Your task to perform on an android device: Open notification settings Image 0: 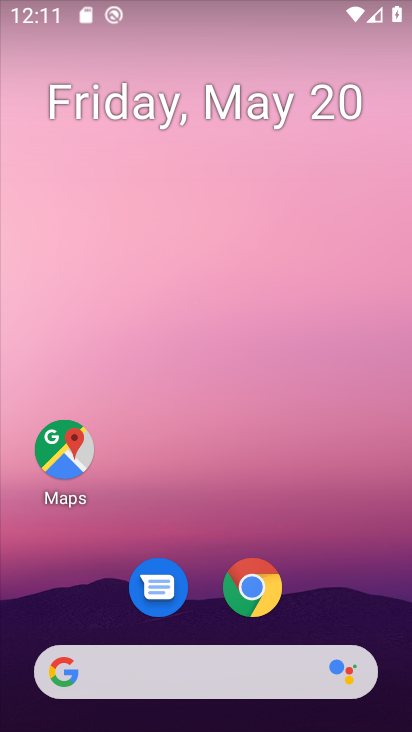
Step 0: drag from (376, 602) to (367, 170)
Your task to perform on an android device: Open notification settings Image 1: 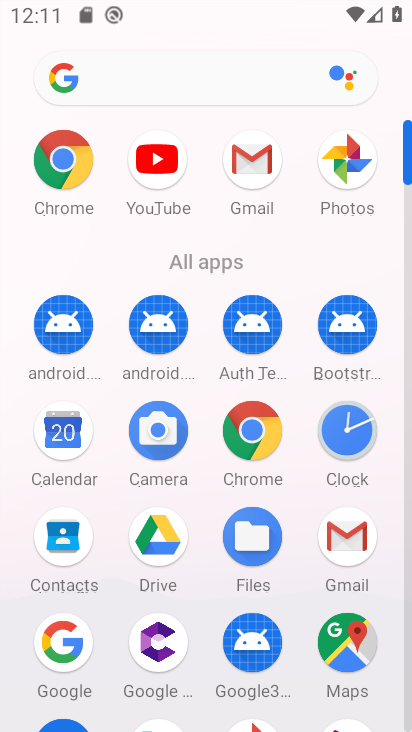
Step 1: drag from (296, 566) to (307, 377)
Your task to perform on an android device: Open notification settings Image 2: 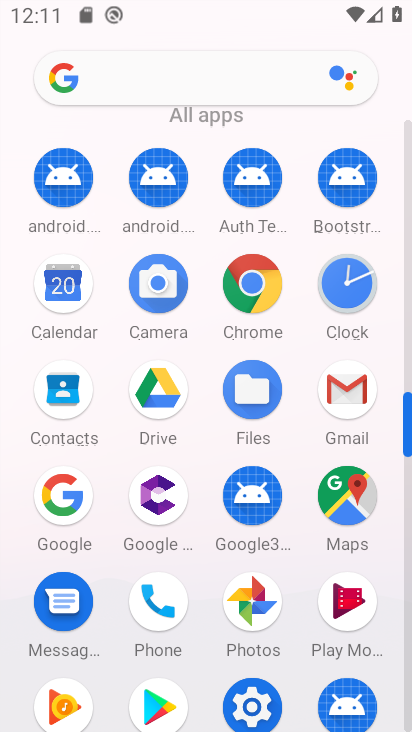
Step 2: drag from (296, 618) to (294, 417)
Your task to perform on an android device: Open notification settings Image 3: 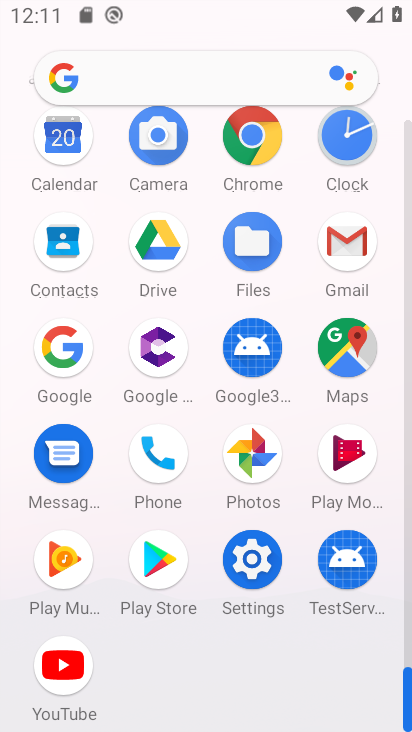
Step 3: click (249, 565)
Your task to perform on an android device: Open notification settings Image 4: 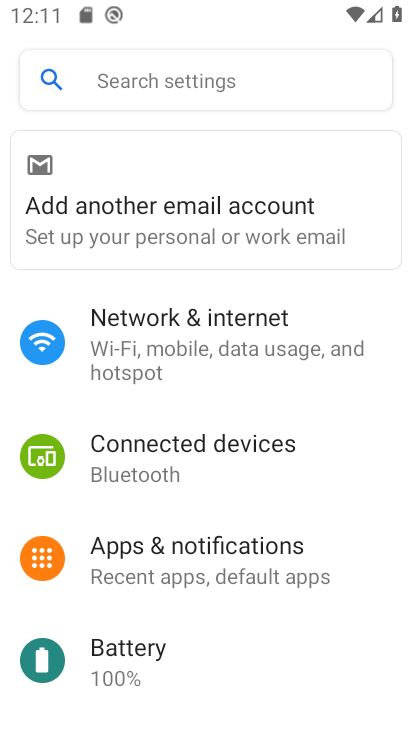
Step 4: drag from (351, 639) to (355, 539)
Your task to perform on an android device: Open notification settings Image 5: 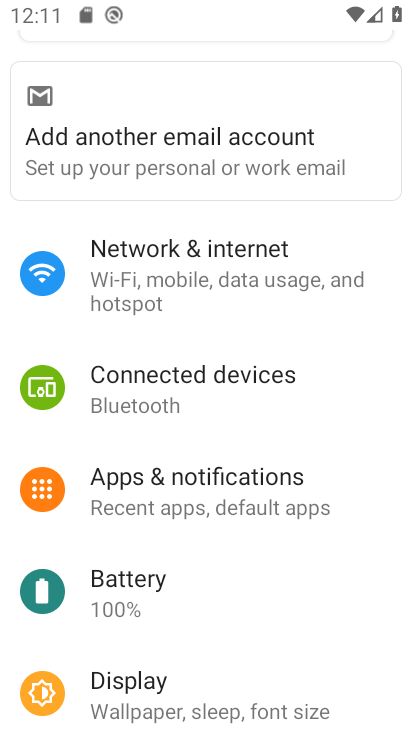
Step 5: drag from (353, 657) to (346, 572)
Your task to perform on an android device: Open notification settings Image 6: 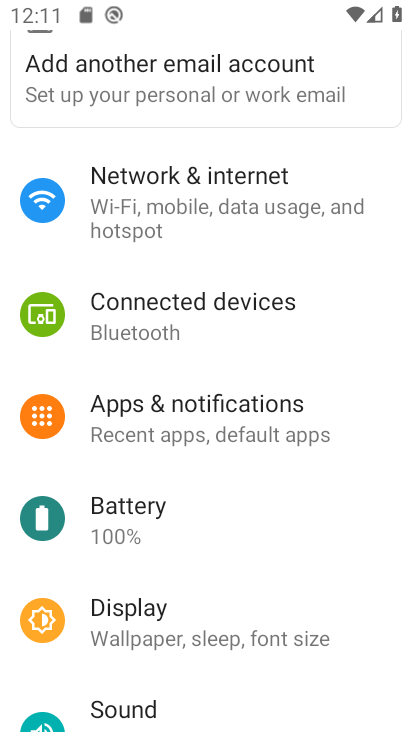
Step 6: drag from (366, 671) to (369, 575)
Your task to perform on an android device: Open notification settings Image 7: 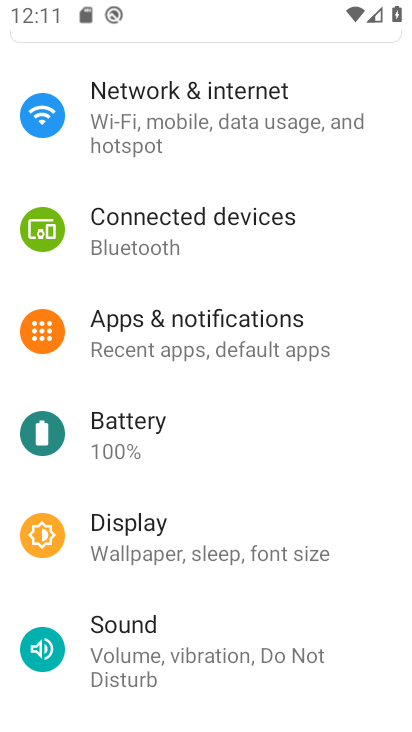
Step 7: drag from (361, 673) to (359, 585)
Your task to perform on an android device: Open notification settings Image 8: 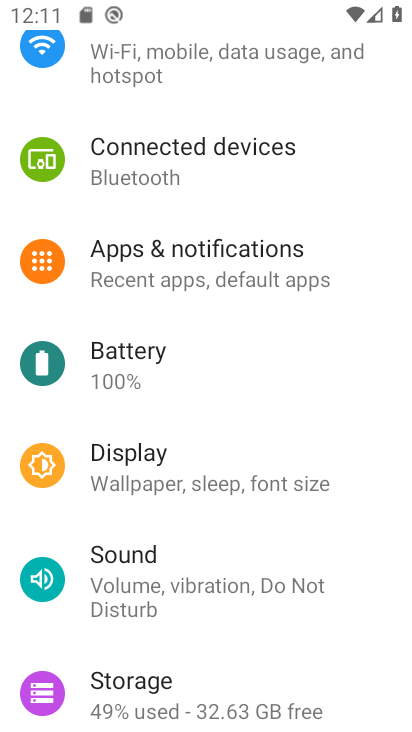
Step 8: drag from (353, 673) to (356, 585)
Your task to perform on an android device: Open notification settings Image 9: 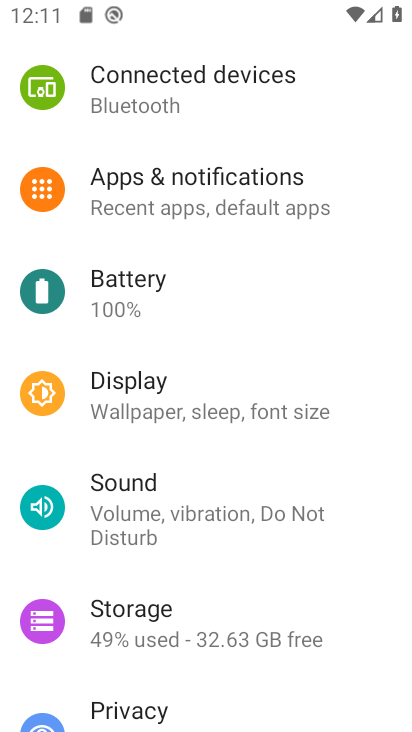
Step 9: drag from (359, 677) to (359, 550)
Your task to perform on an android device: Open notification settings Image 10: 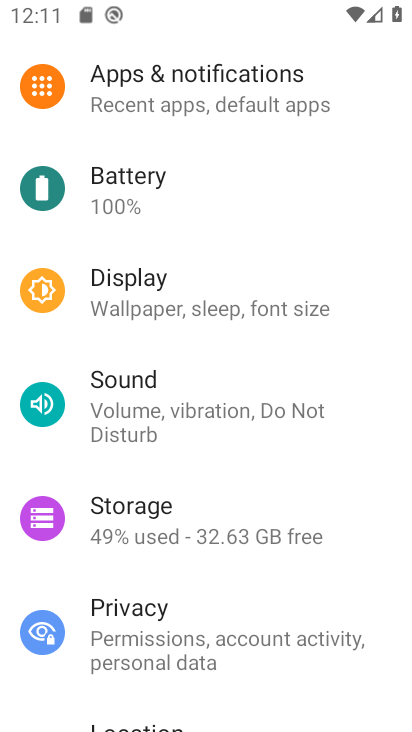
Step 10: drag from (357, 614) to (363, 517)
Your task to perform on an android device: Open notification settings Image 11: 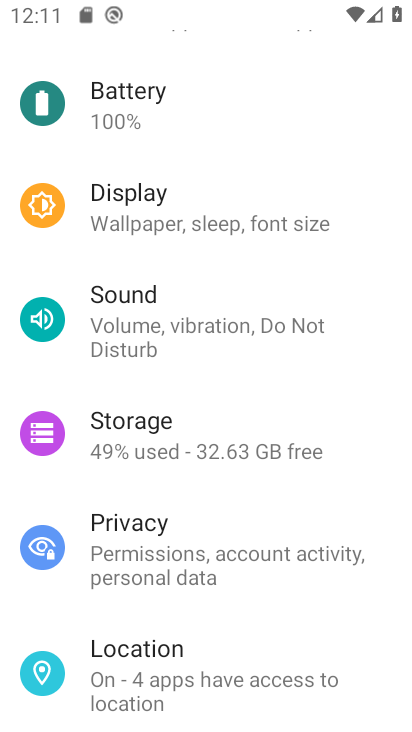
Step 11: drag from (353, 647) to (355, 527)
Your task to perform on an android device: Open notification settings Image 12: 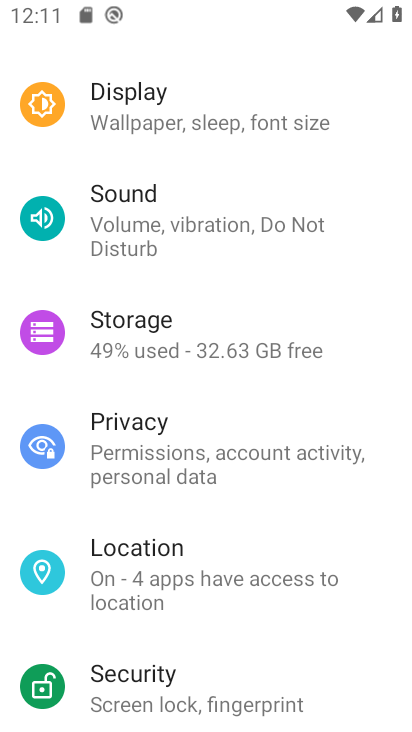
Step 12: drag from (357, 669) to (359, 532)
Your task to perform on an android device: Open notification settings Image 13: 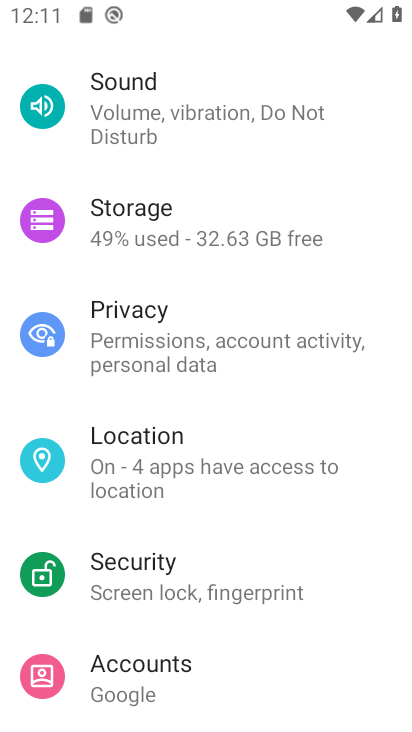
Step 13: drag from (343, 661) to (351, 563)
Your task to perform on an android device: Open notification settings Image 14: 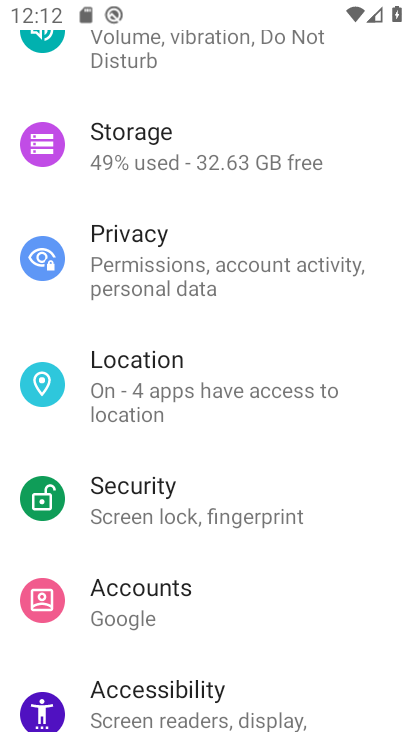
Step 14: drag from (350, 456) to (356, 558)
Your task to perform on an android device: Open notification settings Image 15: 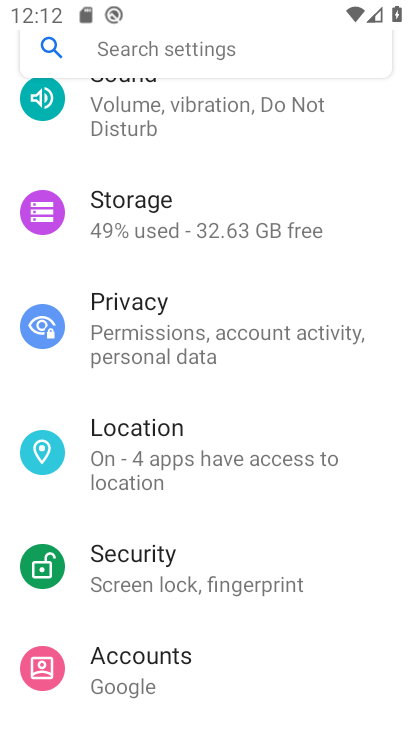
Step 15: drag from (356, 420) to (361, 555)
Your task to perform on an android device: Open notification settings Image 16: 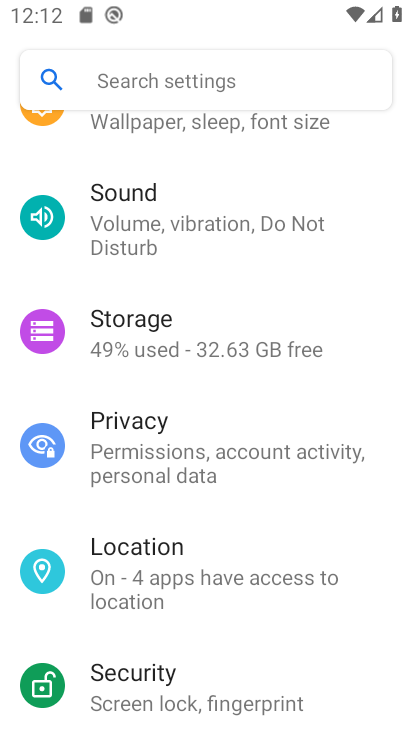
Step 16: drag from (370, 414) to (370, 529)
Your task to perform on an android device: Open notification settings Image 17: 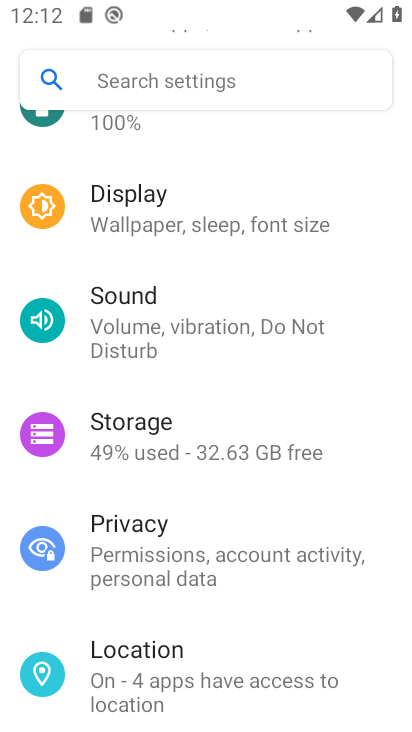
Step 17: drag from (371, 418) to (371, 522)
Your task to perform on an android device: Open notification settings Image 18: 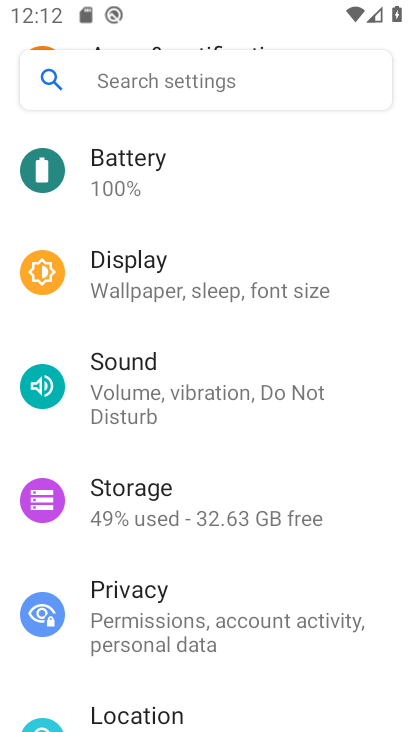
Step 18: drag from (362, 392) to (362, 501)
Your task to perform on an android device: Open notification settings Image 19: 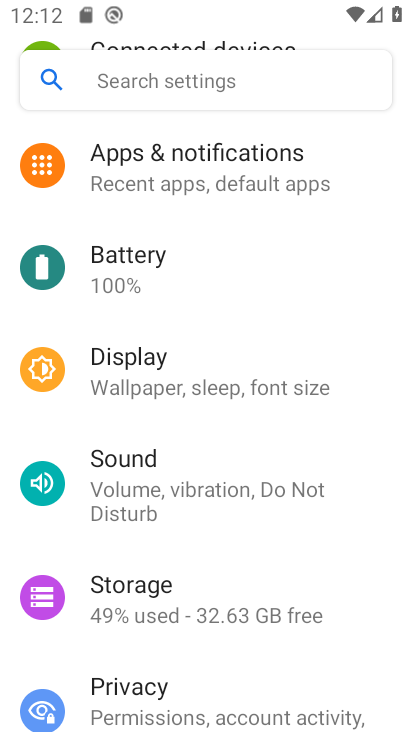
Step 19: drag from (363, 363) to (351, 474)
Your task to perform on an android device: Open notification settings Image 20: 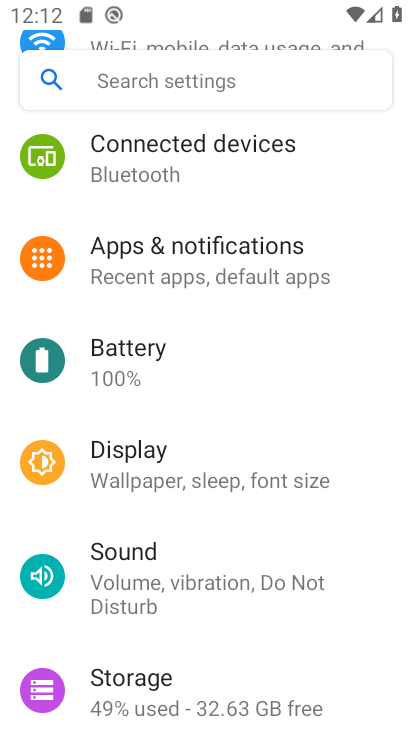
Step 20: drag from (357, 338) to (358, 464)
Your task to perform on an android device: Open notification settings Image 21: 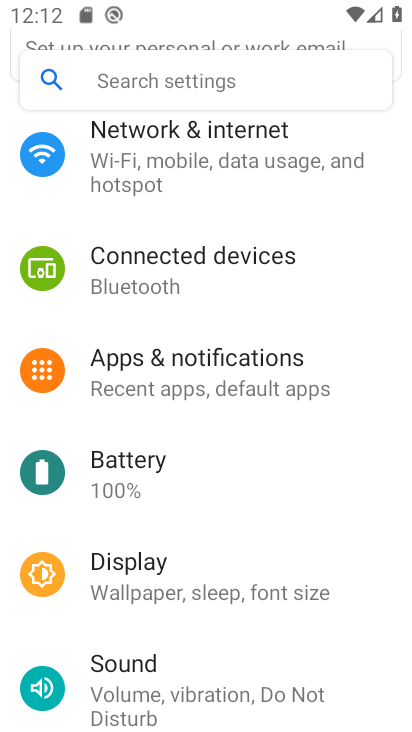
Step 21: drag from (334, 347) to (341, 488)
Your task to perform on an android device: Open notification settings Image 22: 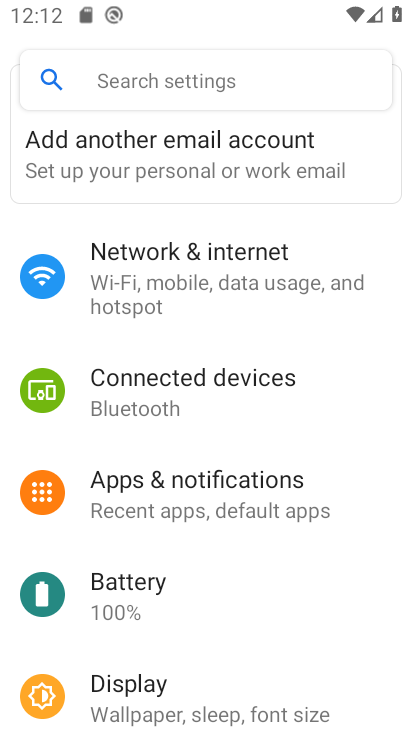
Step 22: click (287, 515)
Your task to perform on an android device: Open notification settings Image 23: 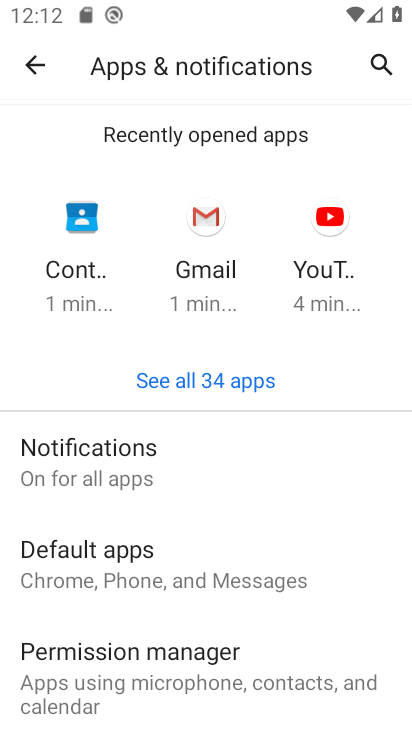
Step 23: click (148, 447)
Your task to perform on an android device: Open notification settings Image 24: 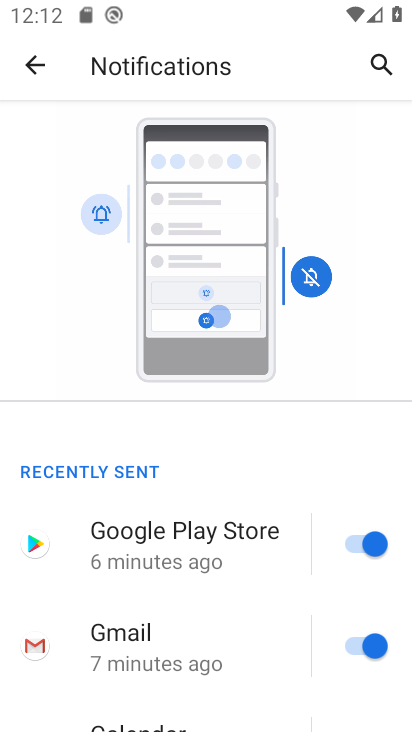
Step 24: task complete